Your task to perform on an android device: turn on bluetooth scan Image 0: 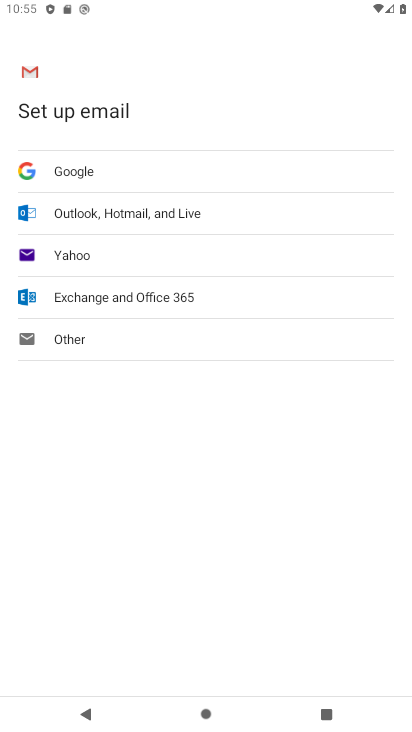
Step 0: press home button
Your task to perform on an android device: turn on bluetooth scan Image 1: 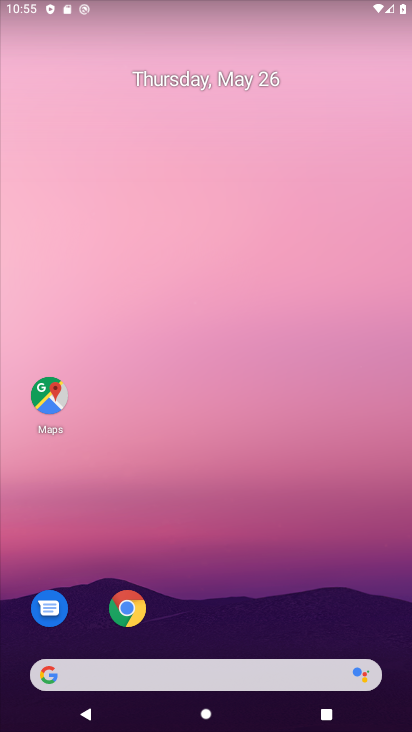
Step 1: drag from (317, 604) to (339, 141)
Your task to perform on an android device: turn on bluetooth scan Image 2: 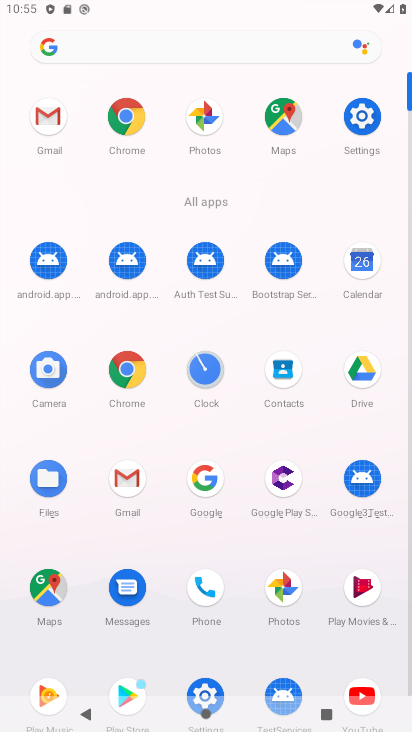
Step 2: click (365, 110)
Your task to perform on an android device: turn on bluetooth scan Image 3: 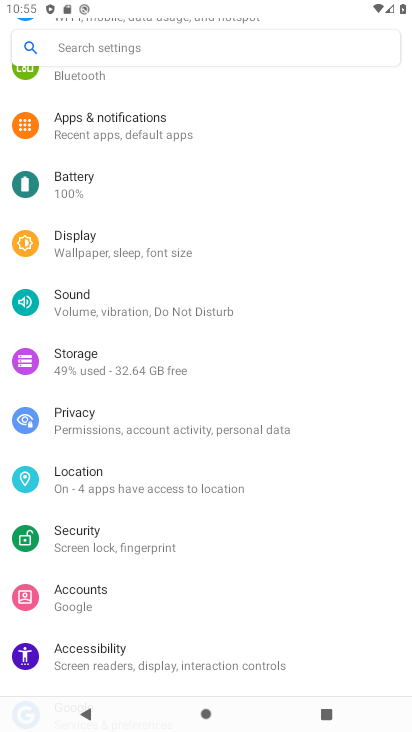
Step 3: drag from (227, 586) to (358, 260)
Your task to perform on an android device: turn on bluetooth scan Image 4: 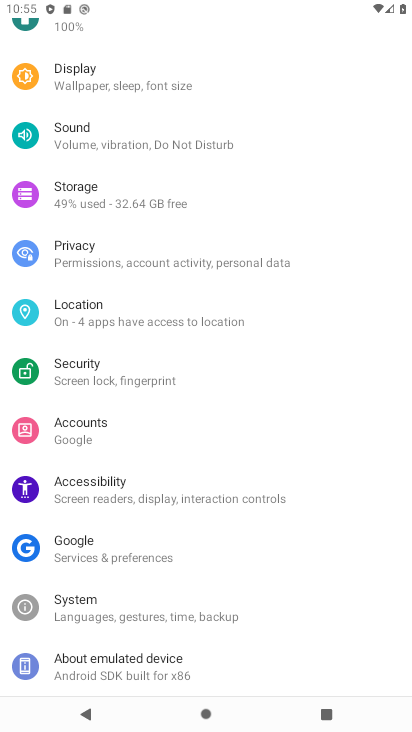
Step 4: drag from (245, 218) to (222, 609)
Your task to perform on an android device: turn on bluetooth scan Image 5: 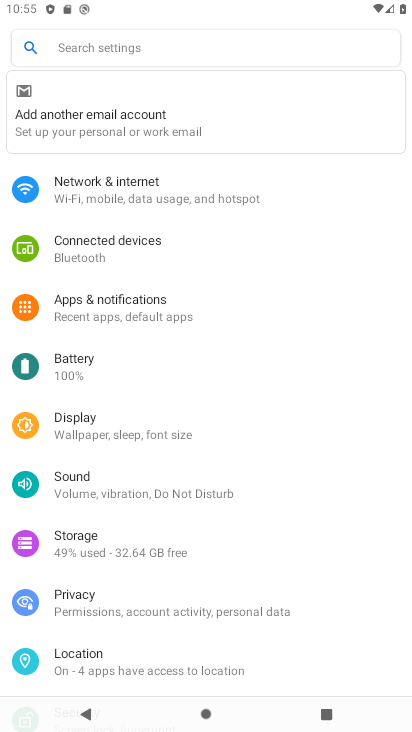
Step 5: click (193, 661)
Your task to perform on an android device: turn on bluetooth scan Image 6: 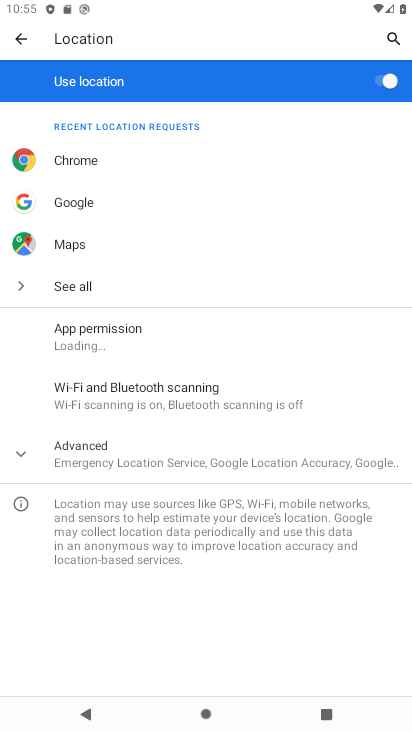
Step 6: click (138, 338)
Your task to perform on an android device: turn on bluetooth scan Image 7: 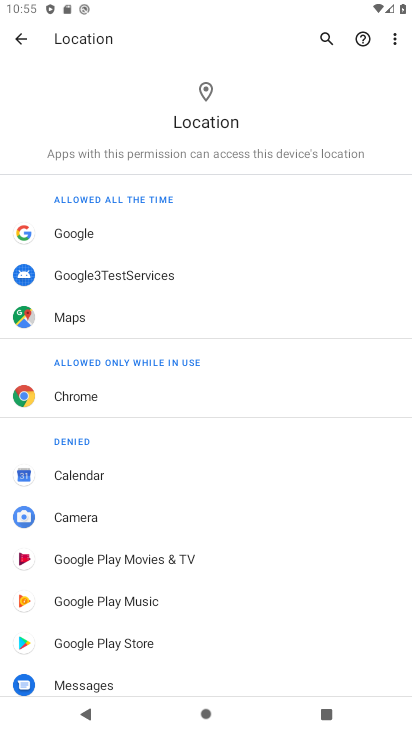
Step 7: click (10, 39)
Your task to perform on an android device: turn on bluetooth scan Image 8: 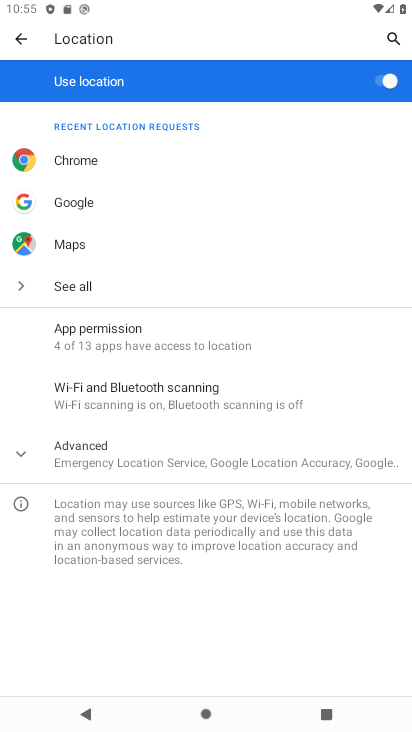
Step 8: click (204, 400)
Your task to perform on an android device: turn on bluetooth scan Image 9: 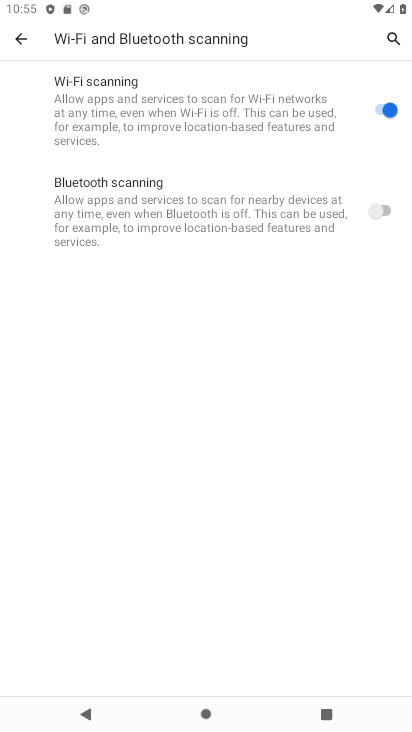
Step 9: click (383, 196)
Your task to perform on an android device: turn on bluetooth scan Image 10: 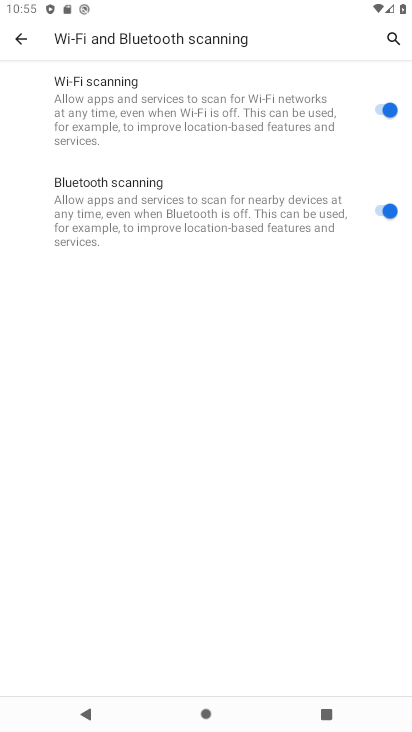
Step 10: task complete